Your task to perform on an android device: open a bookmark in the chrome app Image 0: 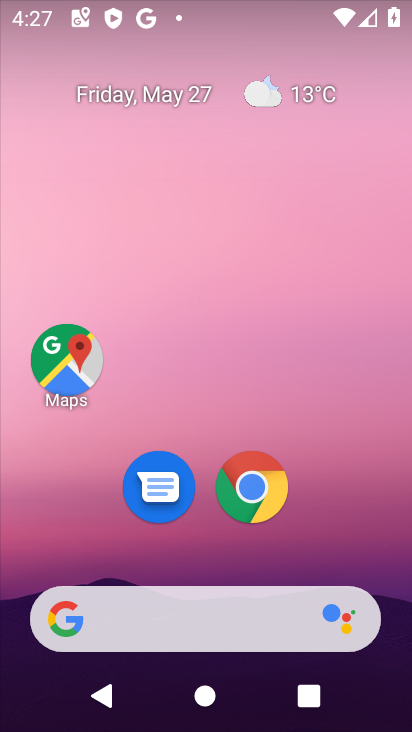
Step 0: click (249, 488)
Your task to perform on an android device: open a bookmark in the chrome app Image 1: 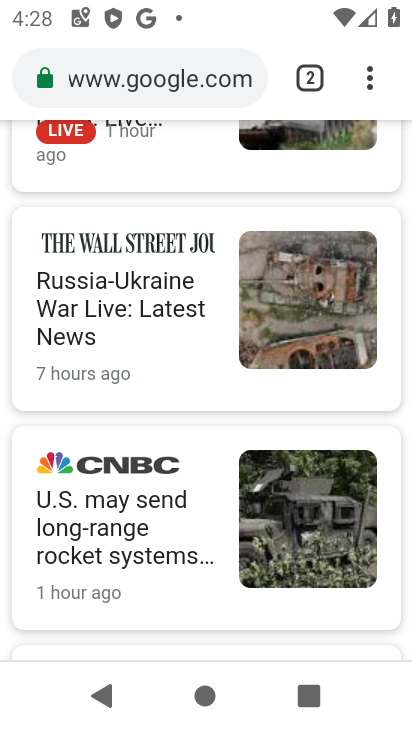
Step 1: task complete